Your task to perform on an android device: see tabs open on other devices in the chrome app Image 0: 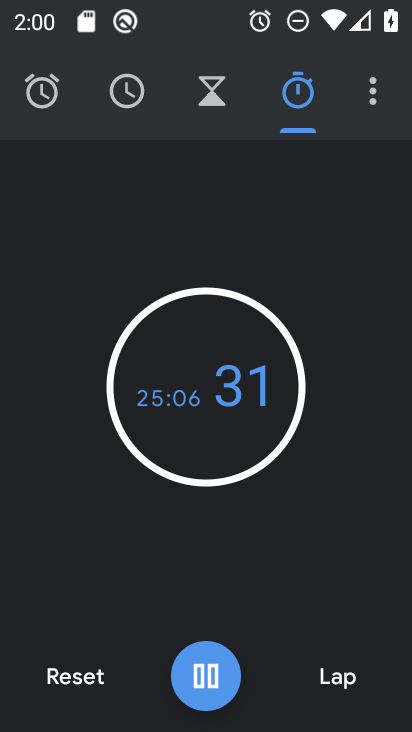
Step 0: press home button
Your task to perform on an android device: see tabs open on other devices in the chrome app Image 1: 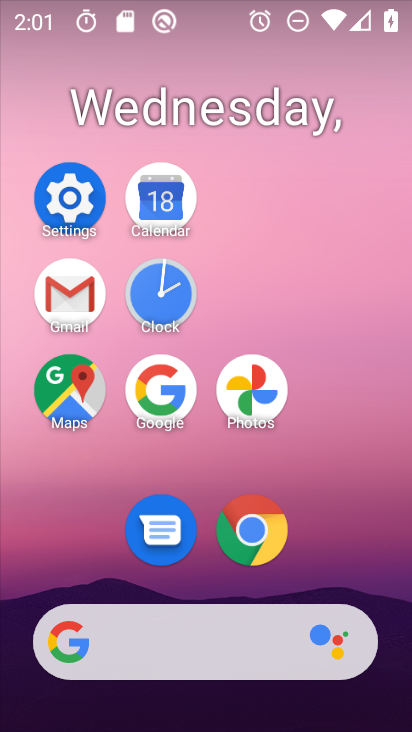
Step 1: click (231, 535)
Your task to perform on an android device: see tabs open on other devices in the chrome app Image 2: 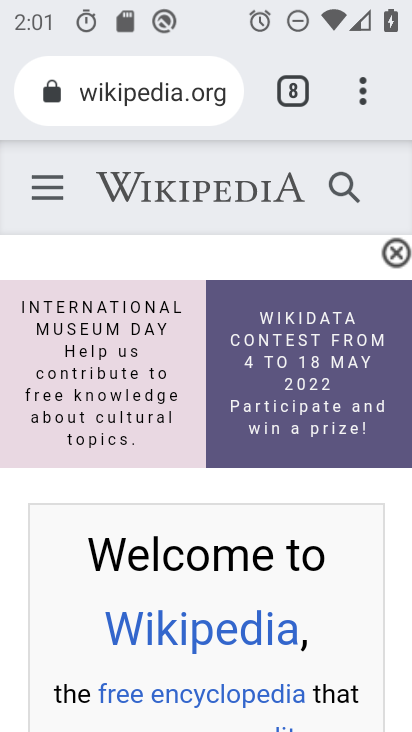
Step 2: click (361, 85)
Your task to perform on an android device: see tabs open on other devices in the chrome app Image 3: 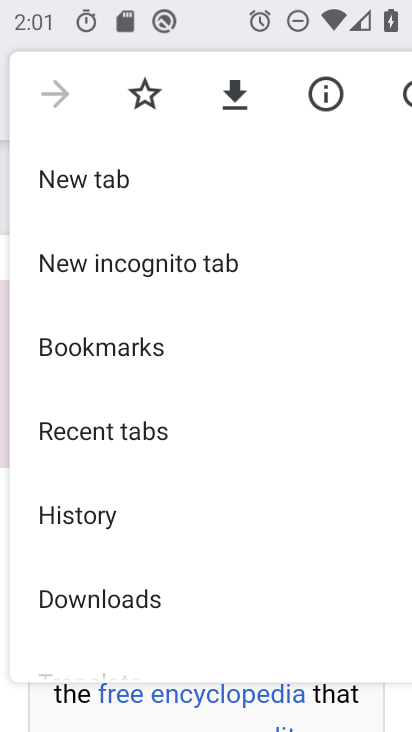
Step 3: click (153, 436)
Your task to perform on an android device: see tabs open on other devices in the chrome app Image 4: 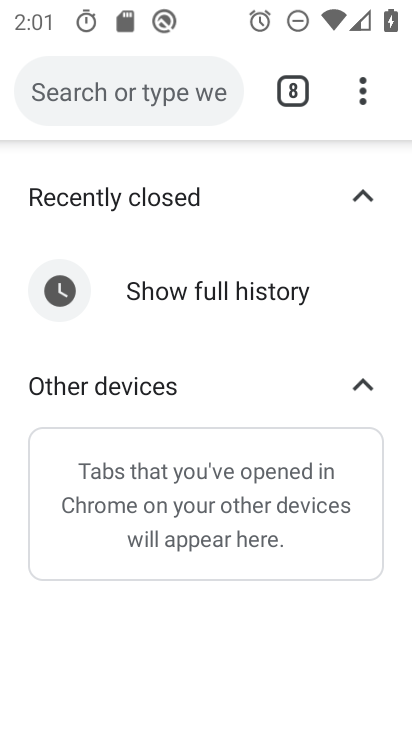
Step 4: task complete